Your task to perform on an android device: Open Reddit.com Image 0: 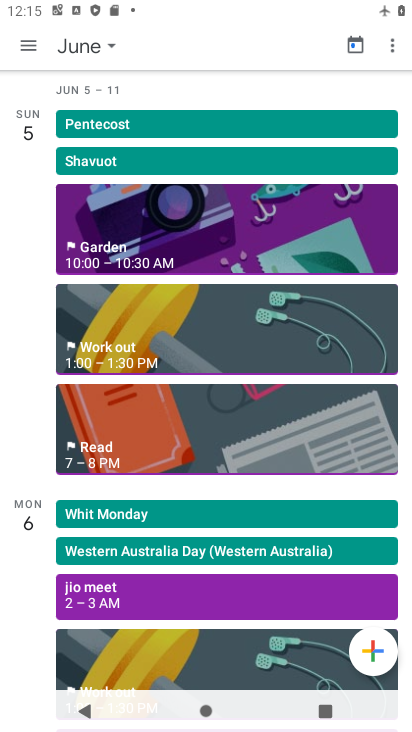
Step 0: press home button
Your task to perform on an android device: Open Reddit.com Image 1: 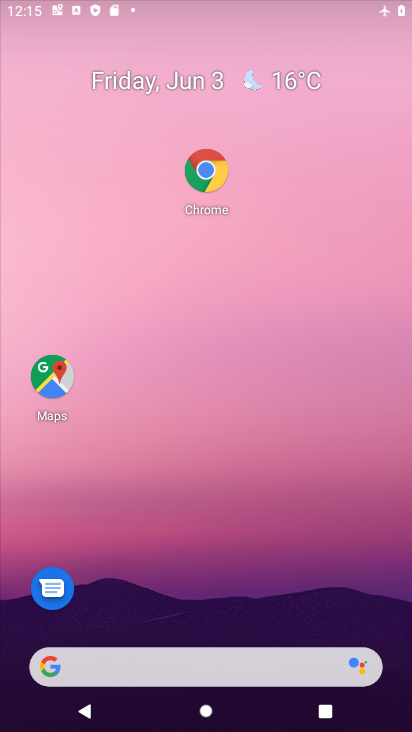
Step 1: drag from (194, 589) to (247, 299)
Your task to perform on an android device: Open Reddit.com Image 2: 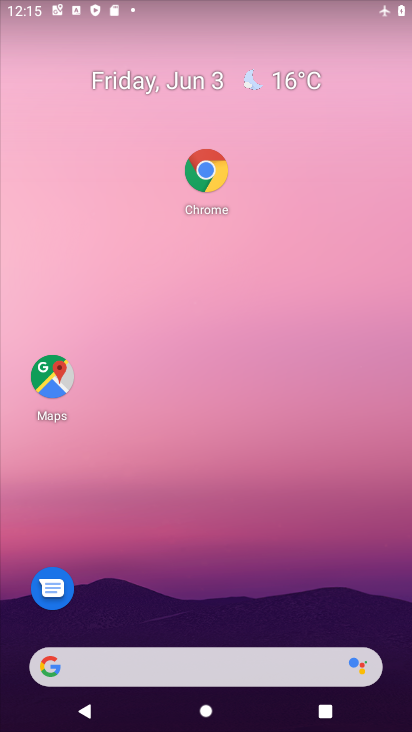
Step 2: drag from (216, 655) to (227, 151)
Your task to perform on an android device: Open Reddit.com Image 3: 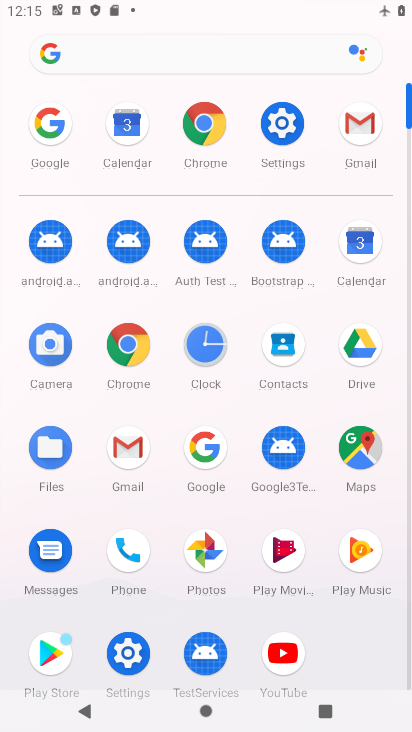
Step 3: click (215, 143)
Your task to perform on an android device: Open Reddit.com Image 4: 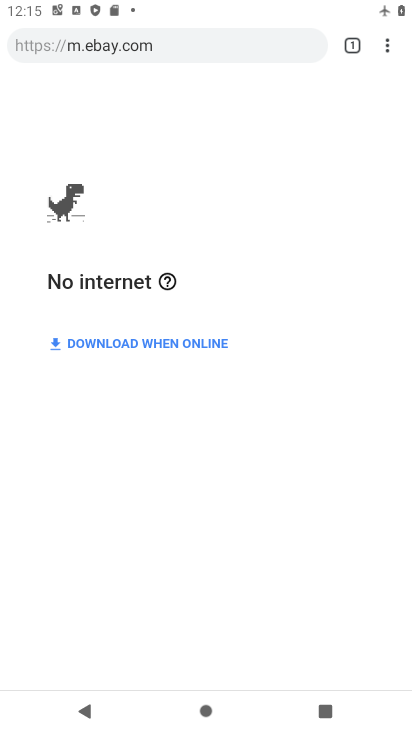
Step 4: click (206, 53)
Your task to perform on an android device: Open Reddit.com Image 5: 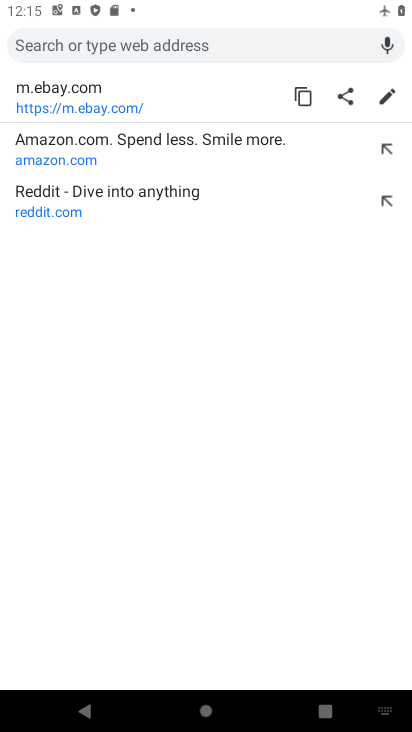
Step 5: click (176, 210)
Your task to perform on an android device: Open Reddit.com Image 6: 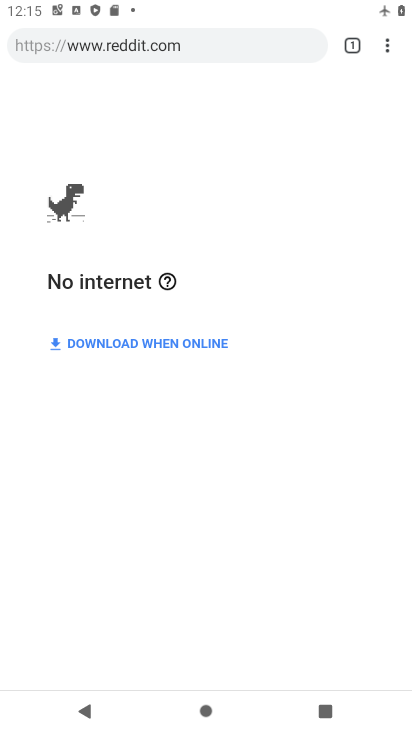
Step 6: task complete